Your task to perform on an android device: Search for sushi restaurants on Maps Image 0: 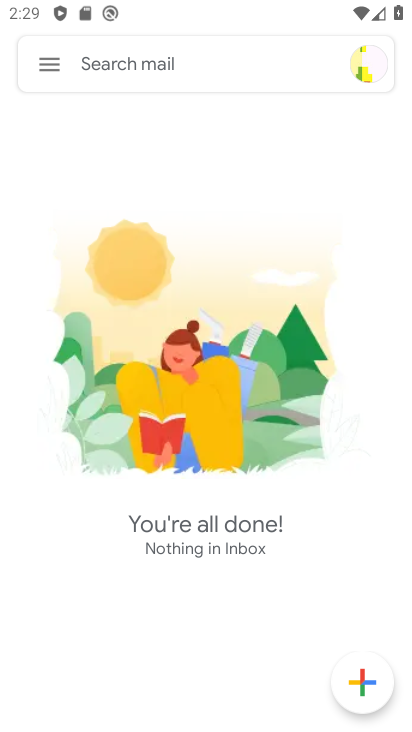
Step 0: press home button
Your task to perform on an android device: Search for sushi restaurants on Maps Image 1: 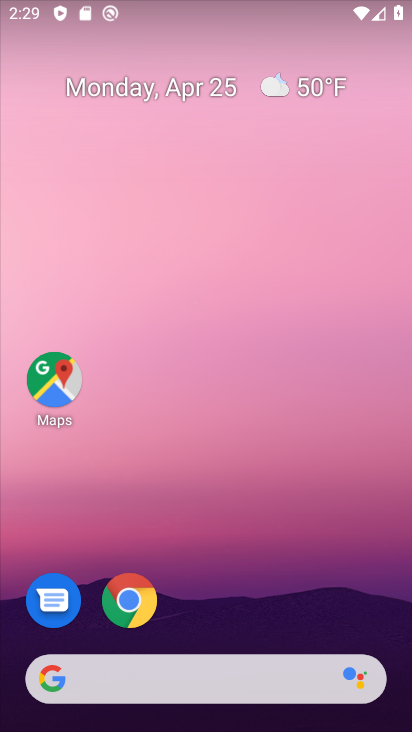
Step 1: drag from (345, 510) to (274, 74)
Your task to perform on an android device: Search for sushi restaurants on Maps Image 2: 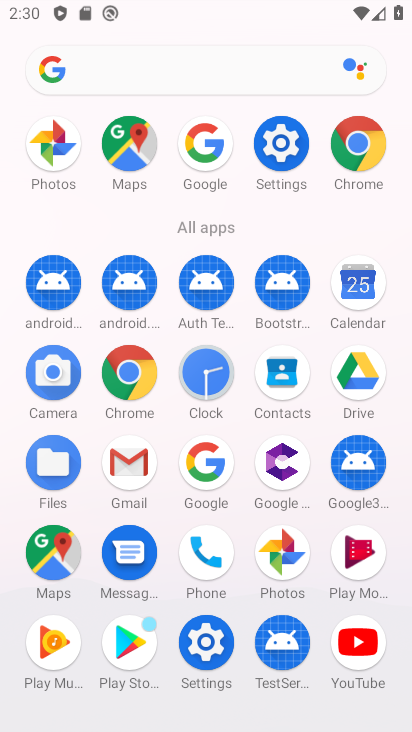
Step 2: click (60, 570)
Your task to perform on an android device: Search for sushi restaurants on Maps Image 3: 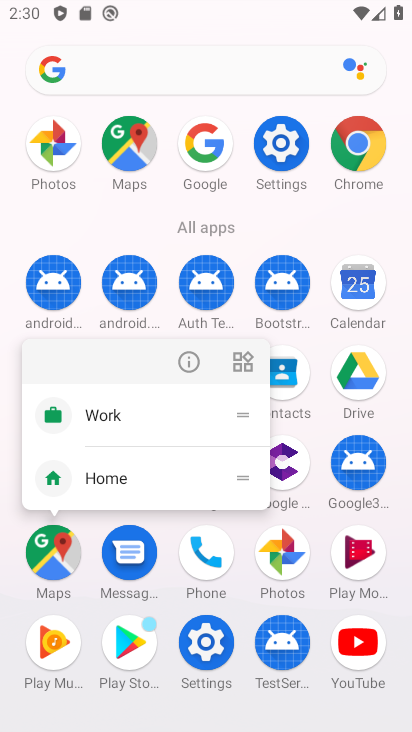
Step 3: click (69, 556)
Your task to perform on an android device: Search for sushi restaurants on Maps Image 4: 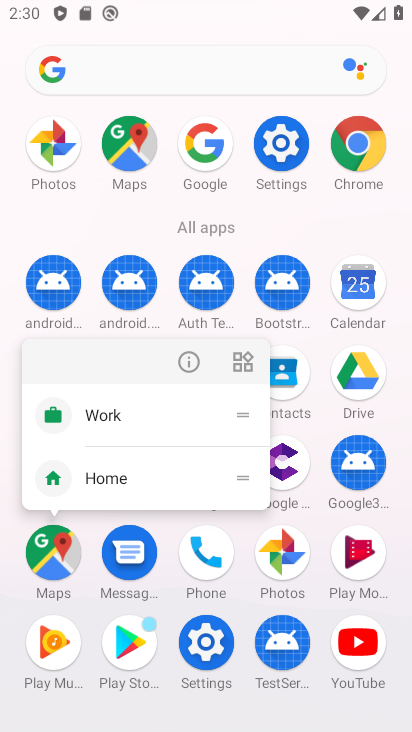
Step 4: click (37, 552)
Your task to perform on an android device: Search for sushi restaurants on Maps Image 5: 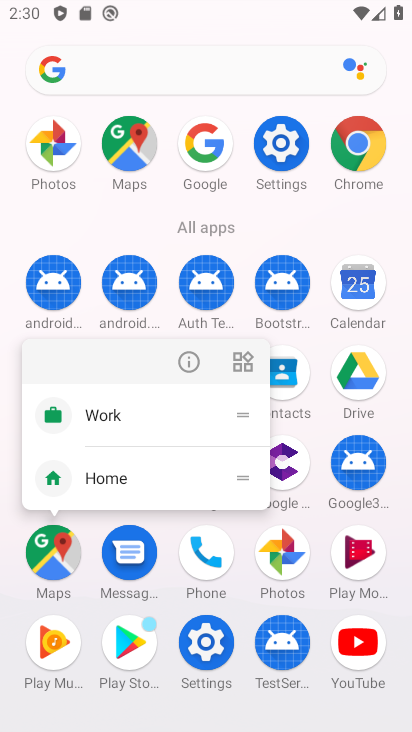
Step 5: click (46, 570)
Your task to perform on an android device: Search for sushi restaurants on Maps Image 6: 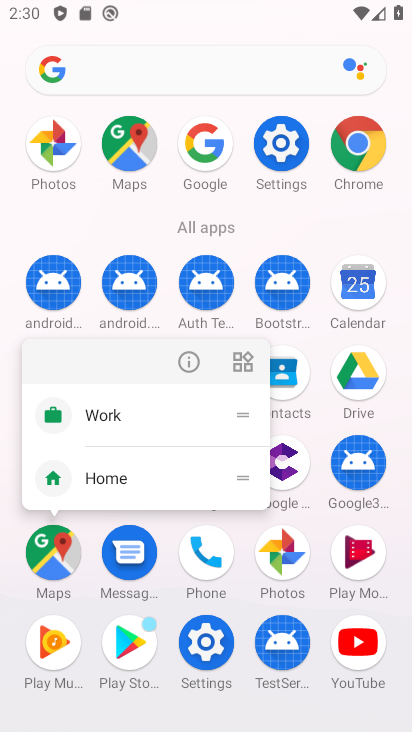
Step 6: click (50, 572)
Your task to perform on an android device: Search for sushi restaurants on Maps Image 7: 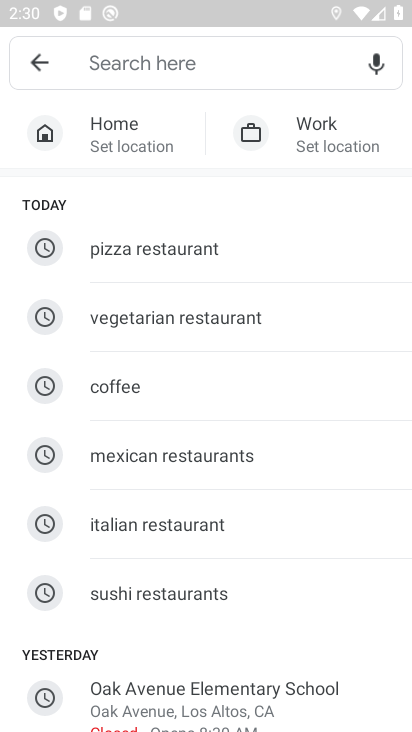
Step 7: click (140, 593)
Your task to perform on an android device: Search for sushi restaurants on Maps Image 8: 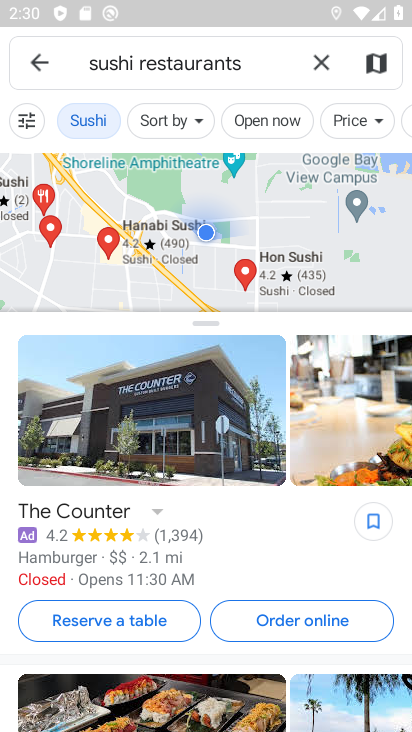
Step 8: task complete